Your task to perform on an android device: turn smart compose on in the gmail app Image 0: 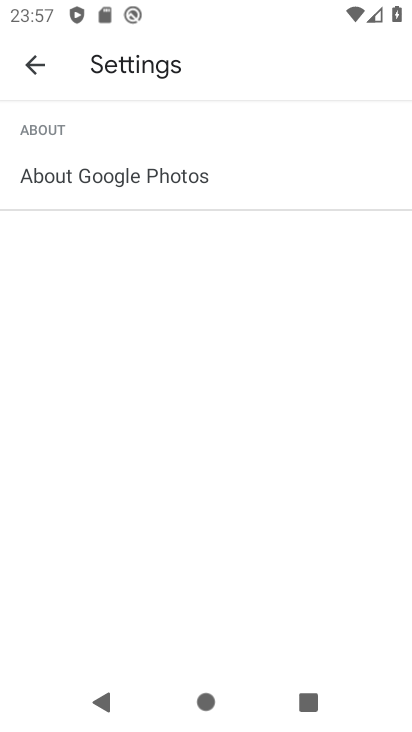
Step 0: press back button
Your task to perform on an android device: turn smart compose on in the gmail app Image 1: 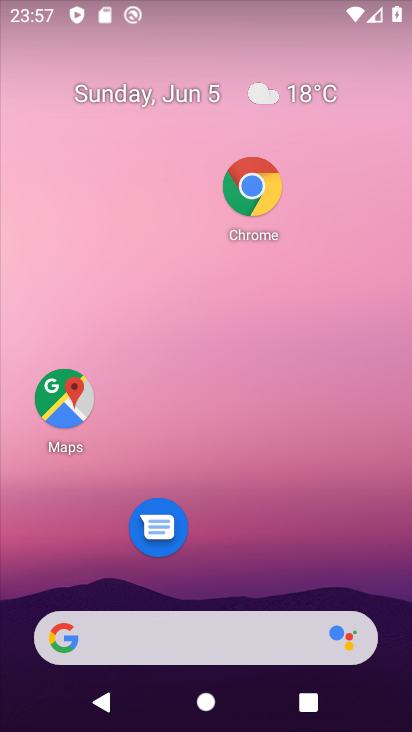
Step 1: drag from (226, 577) to (184, 16)
Your task to perform on an android device: turn smart compose on in the gmail app Image 2: 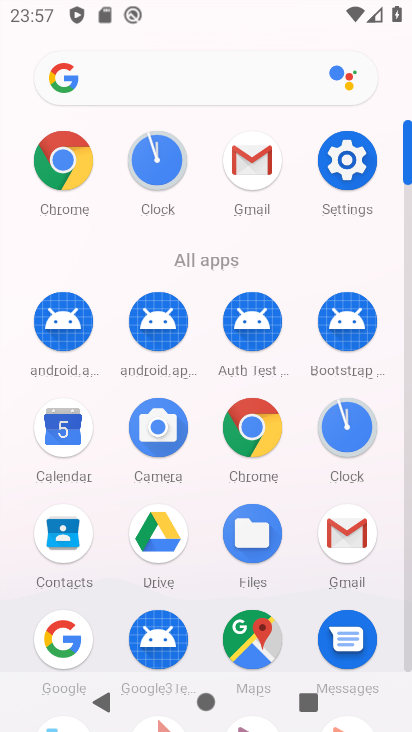
Step 2: click (242, 161)
Your task to perform on an android device: turn smart compose on in the gmail app Image 3: 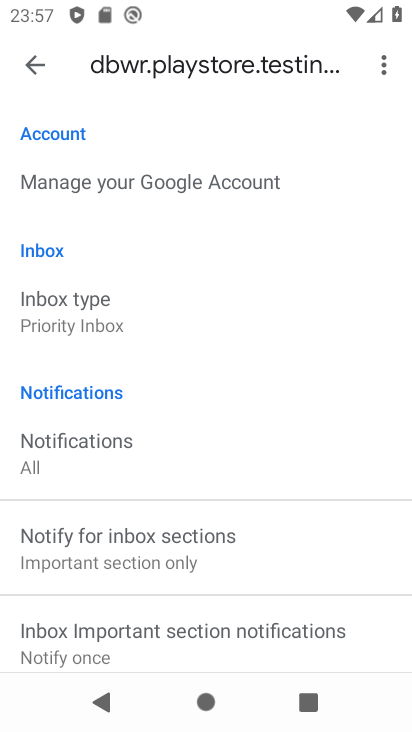
Step 3: task complete